Your task to perform on an android device: Go to CNN.com Image 0: 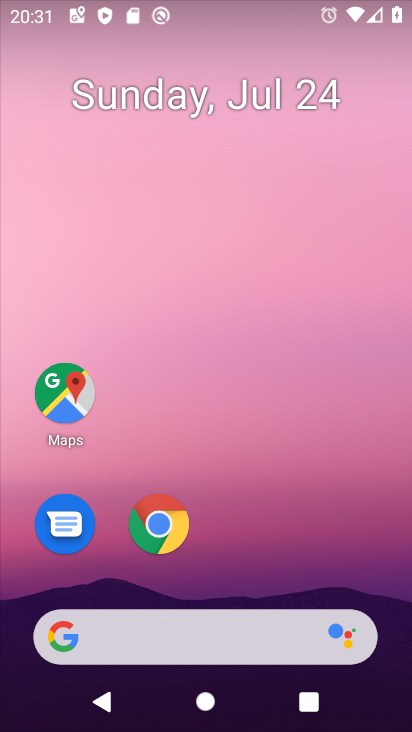
Step 0: click (244, 653)
Your task to perform on an android device: Go to CNN.com Image 1: 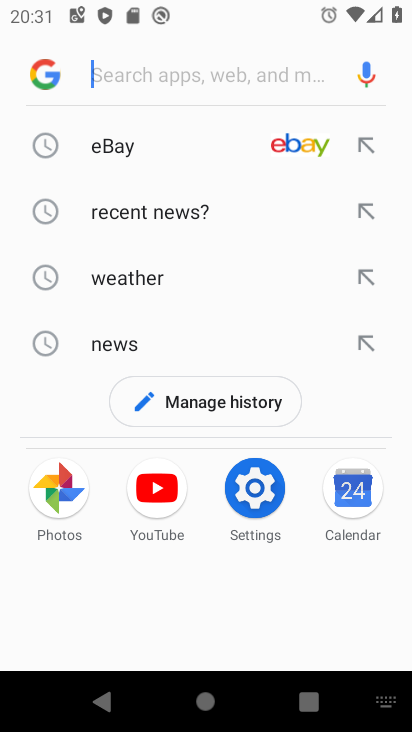
Step 1: type "cnn.com"
Your task to perform on an android device: Go to CNN.com Image 2: 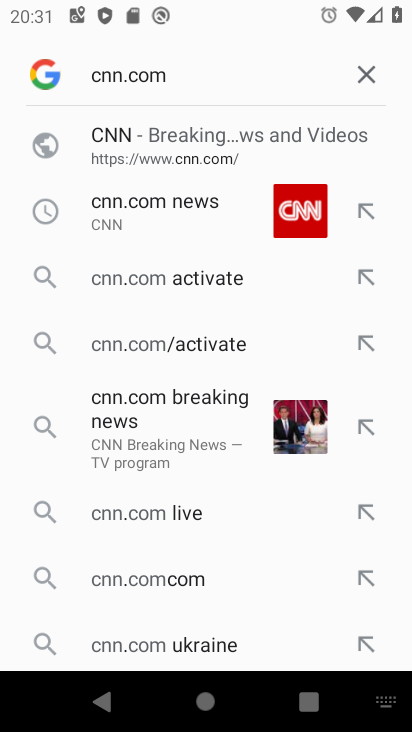
Step 2: click (120, 161)
Your task to perform on an android device: Go to CNN.com Image 3: 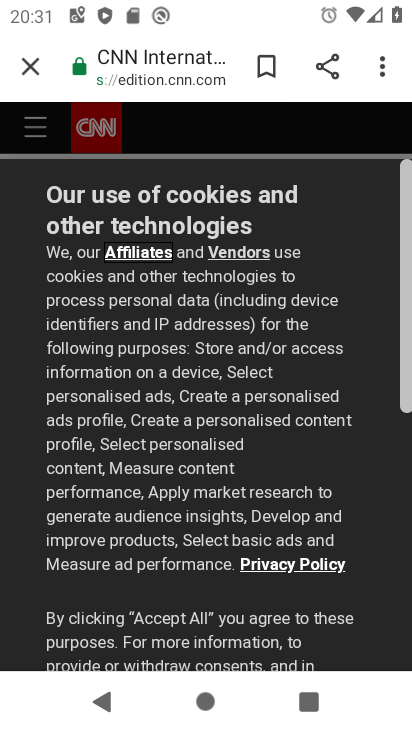
Step 3: drag from (164, 603) to (304, 118)
Your task to perform on an android device: Go to CNN.com Image 4: 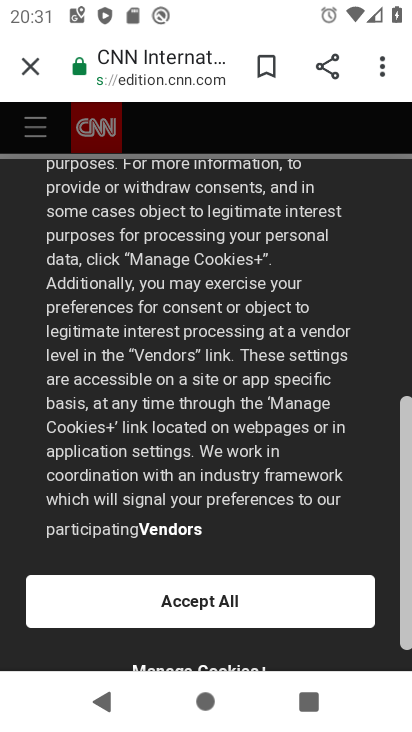
Step 4: click (224, 598)
Your task to perform on an android device: Go to CNN.com Image 5: 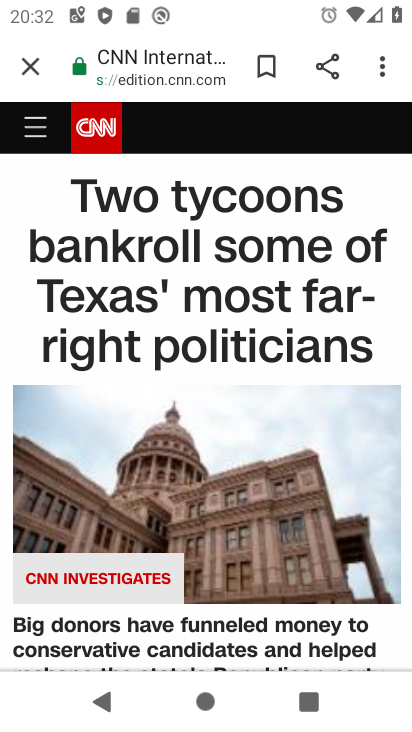
Step 5: task complete